Your task to perform on an android device: add a contact in the contacts app Image 0: 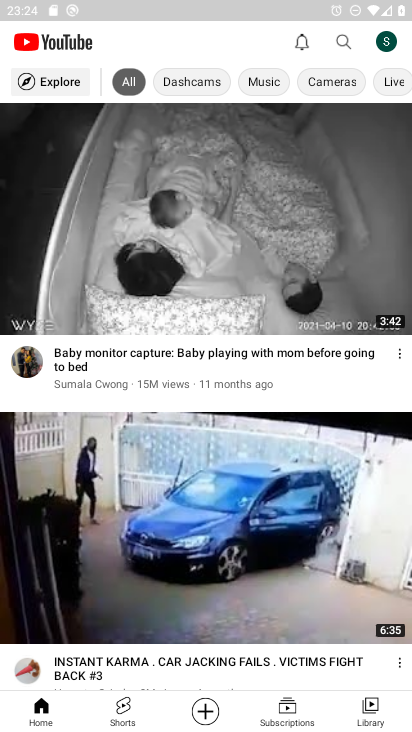
Step 0: press home button
Your task to perform on an android device: add a contact in the contacts app Image 1: 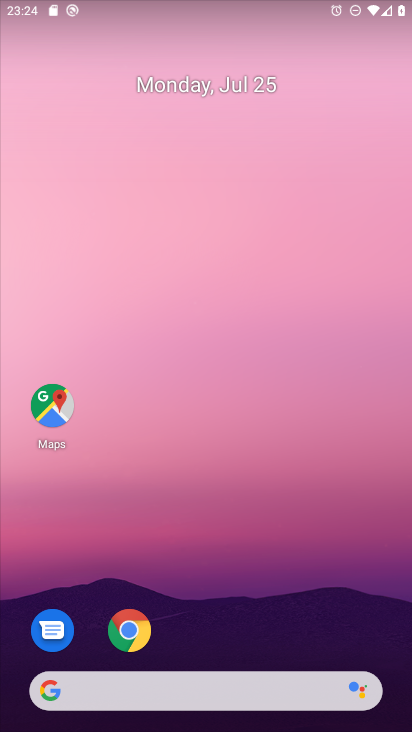
Step 1: drag from (291, 574) to (227, 104)
Your task to perform on an android device: add a contact in the contacts app Image 2: 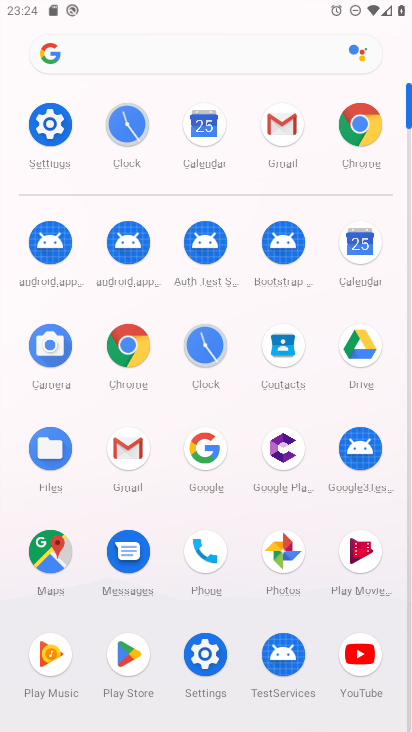
Step 2: click (283, 344)
Your task to perform on an android device: add a contact in the contacts app Image 3: 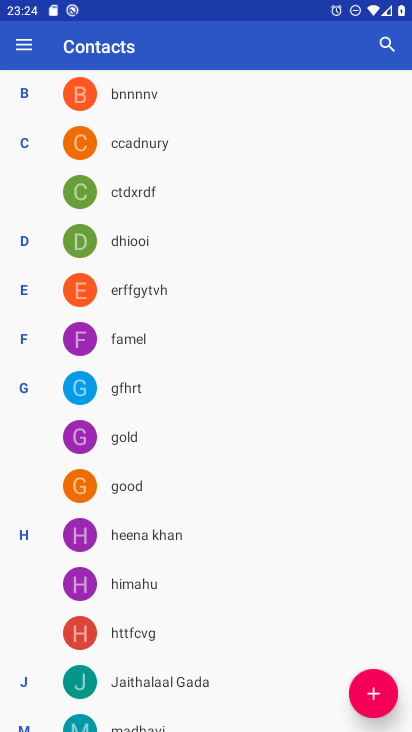
Step 3: click (372, 692)
Your task to perform on an android device: add a contact in the contacts app Image 4: 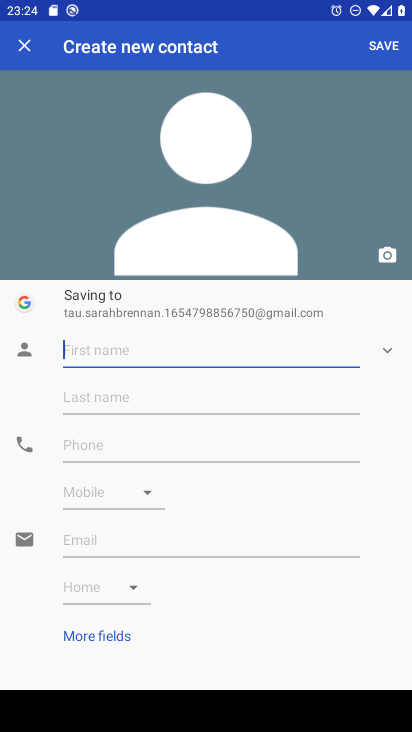
Step 4: type "yamraj"
Your task to perform on an android device: add a contact in the contacts app Image 5: 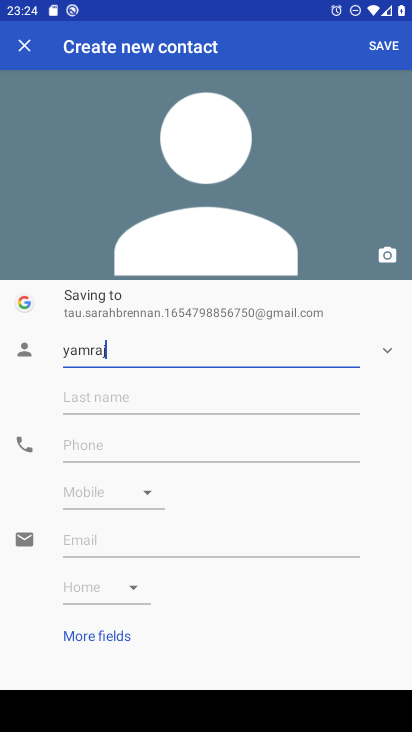
Step 5: click (391, 37)
Your task to perform on an android device: add a contact in the contacts app Image 6: 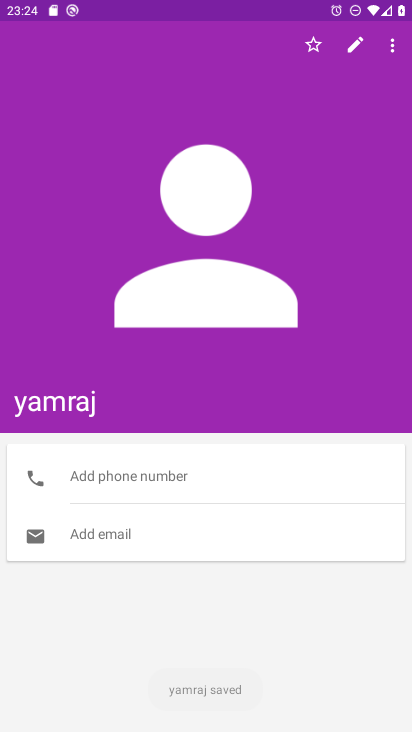
Step 6: task complete